Your task to perform on an android device: Search for seafood restaurants on Google Maps Image 0: 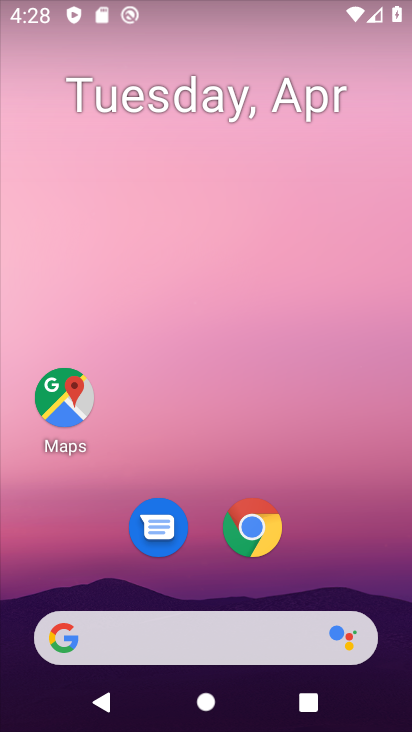
Step 0: click (74, 390)
Your task to perform on an android device: Search for seafood restaurants on Google Maps Image 1: 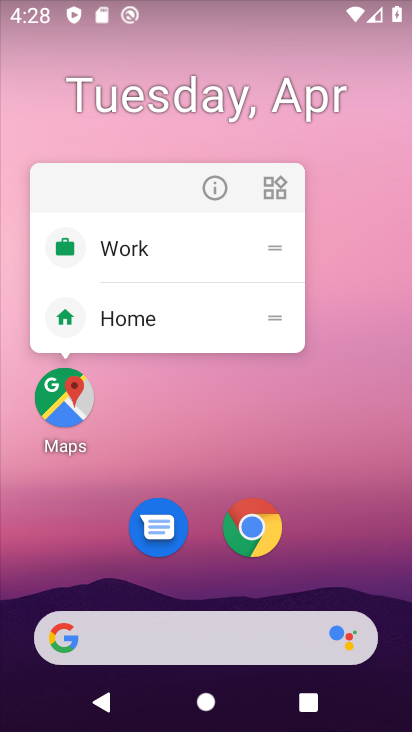
Step 1: click (53, 420)
Your task to perform on an android device: Search for seafood restaurants on Google Maps Image 2: 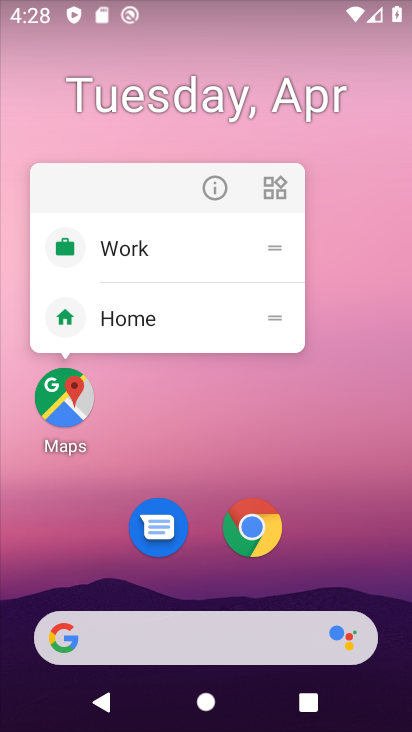
Step 2: click (62, 408)
Your task to perform on an android device: Search for seafood restaurants on Google Maps Image 3: 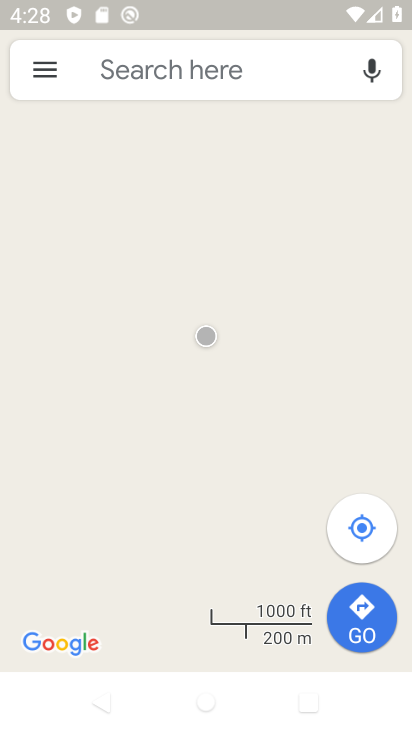
Step 3: click (188, 71)
Your task to perform on an android device: Search for seafood restaurants on Google Maps Image 4: 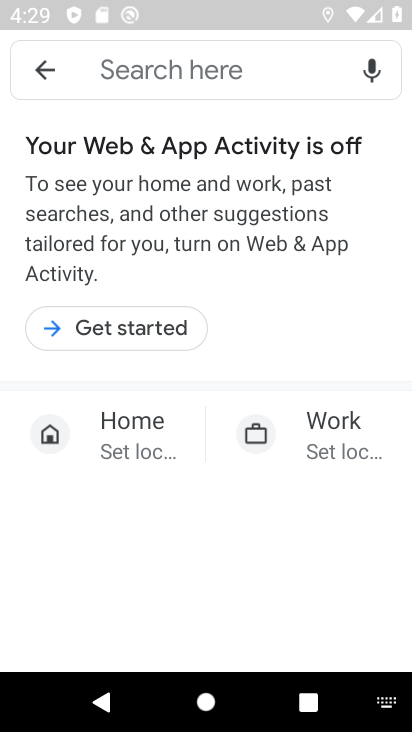
Step 4: type "seafood restaurants"
Your task to perform on an android device: Search for seafood restaurants on Google Maps Image 5: 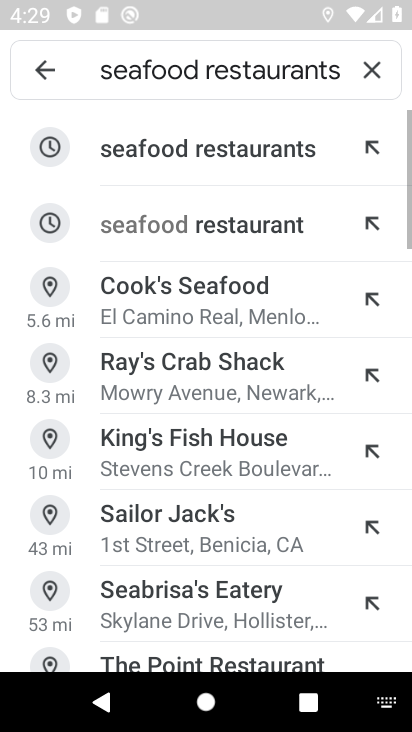
Step 5: task complete